Your task to perform on an android device: clear all cookies in the chrome app Image 0: 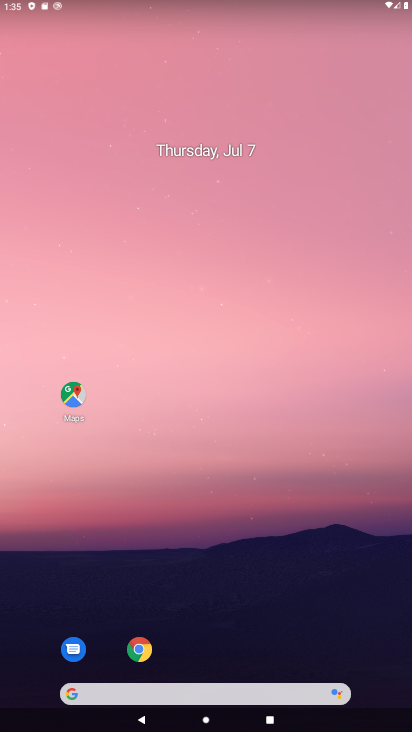
Step 0: drag from (273, 658) to (295, 146)
Your task to perform on an android device: clear all cookies in the chrome app Image 1: 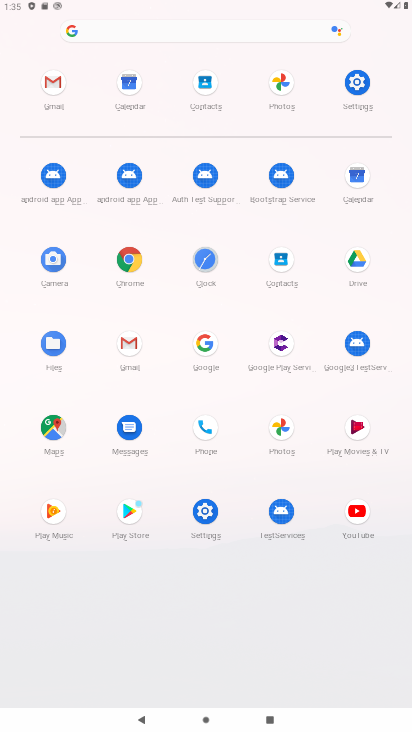
Step 1: click (128, 262)
Your task to perform on an android device: clear all cookies in the chrome app Image 2: 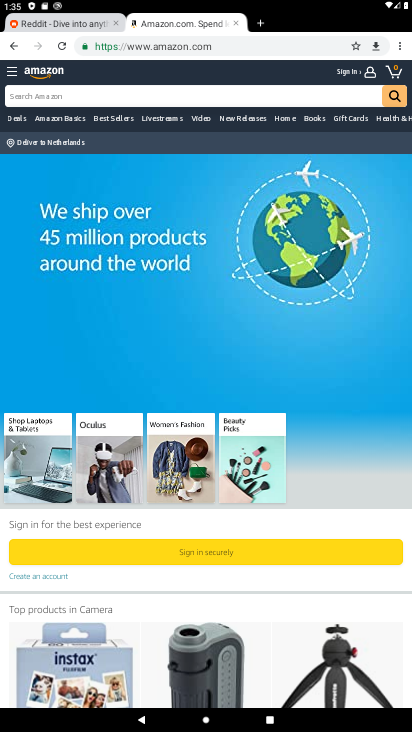
Step 2: click (400, 50)
Your task to perform on an android device: clear all cookies in the chrome app Image 3: 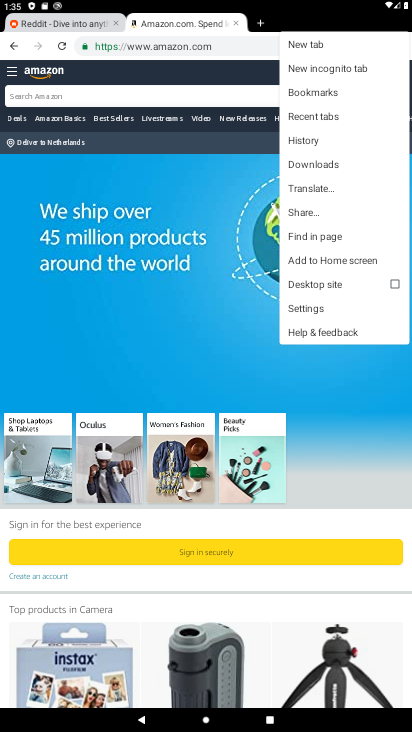
Step 3: click (305, 135)
Your task to perform on an android device: clear all cookies in the chrome app Image 4: 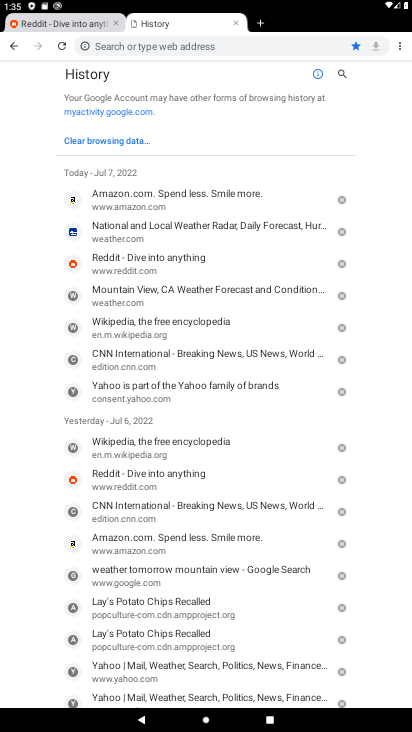
Step 4: click (93, 137)
Your task to perform on an android device: clear all cookies in the chrome app Image 5: 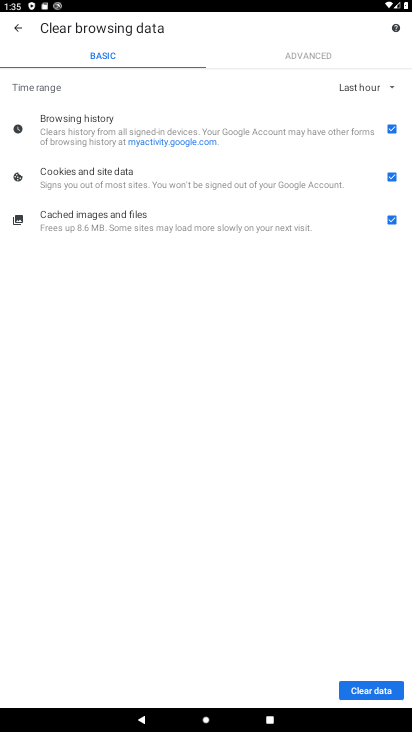
Step 5: click (391, 128)
Your task to perform on an android device: clear all cookies in the chrome app Image 6: 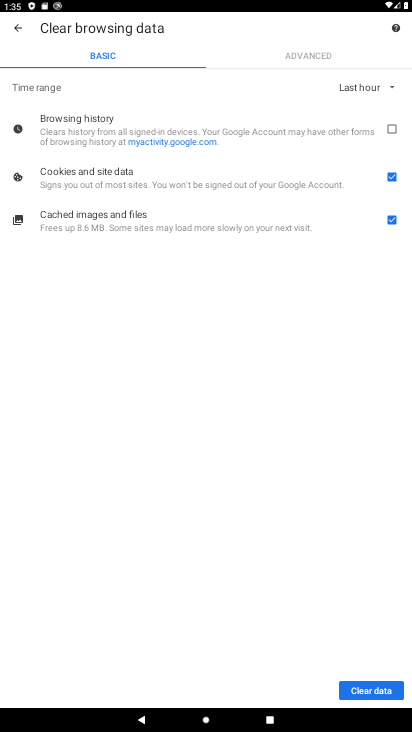
Step 6: click (392, 220)
Your task to perform on an android device: clear all cookies in the chrome app Image 7: 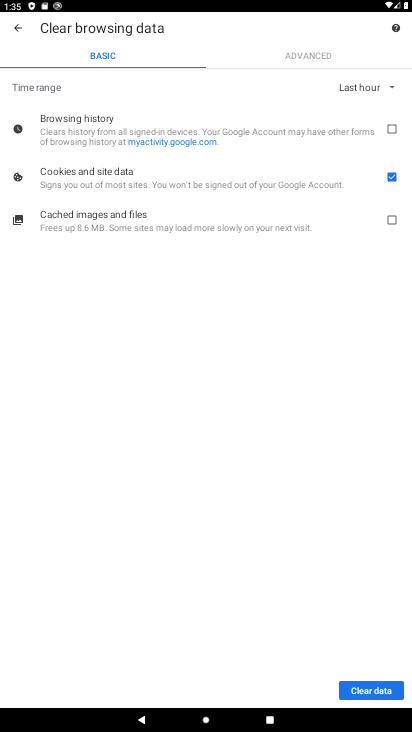
Step 7: click (365, 691)
Your task to perform on an android device: clear all cookies in the chrome app Image 8: 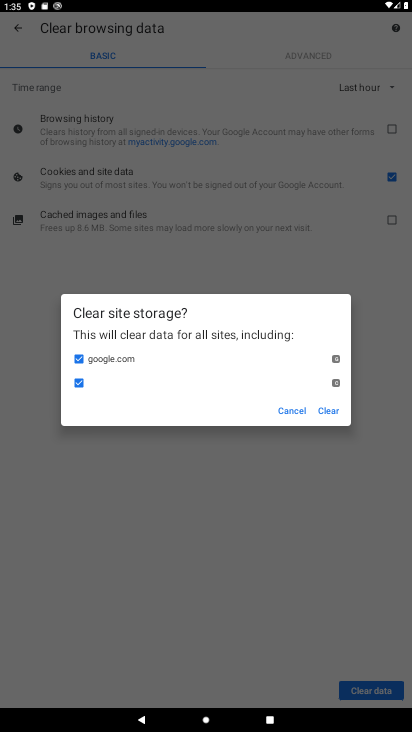
Step 8: click (330, 411)
Your task to perform on an android device: clear all cookies in the chrome app Image 9: 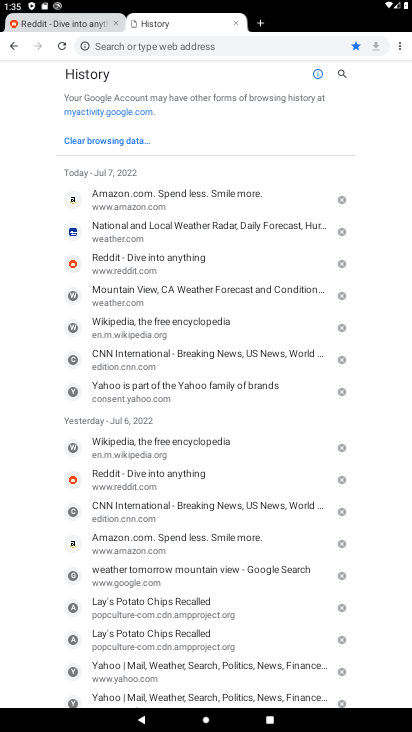
Step 9: task complete